Your task to perform on an android device: turn off smart reply in the gmail app Image 0: 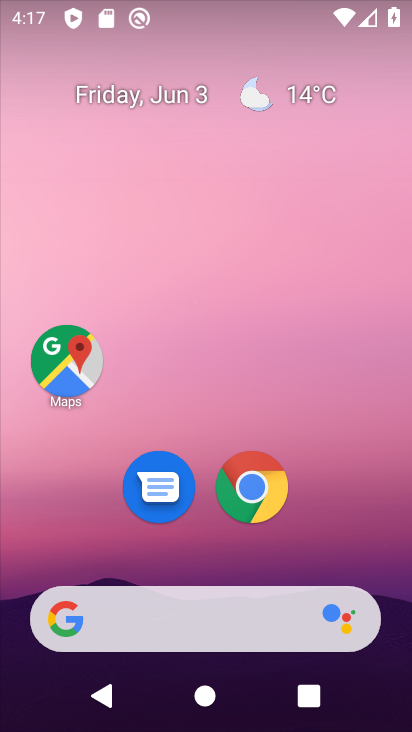
Step 0: drag from (180, 497) to (288, 128)
Your task to perform on an android device: turn off smart reply in the gmail app Image 1: 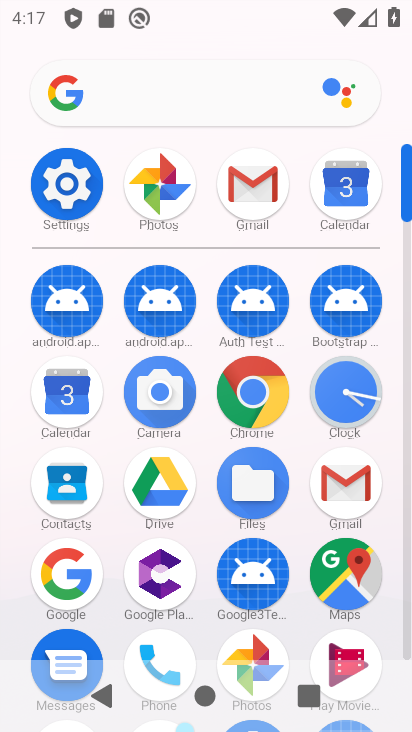
Step 1: click (229, 193)
Your task to perform on an android device: turn off smart reply in the gmail app Image 2: 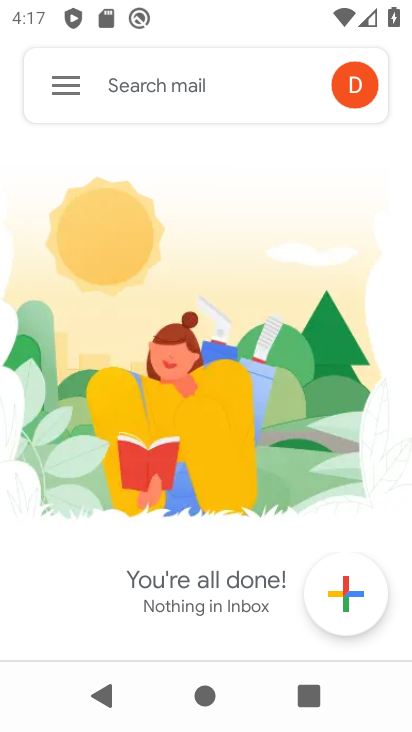
Step 2: click (71, 87)
Your task to perform on an android device: turn off smart reply in the gmail app Image 3: 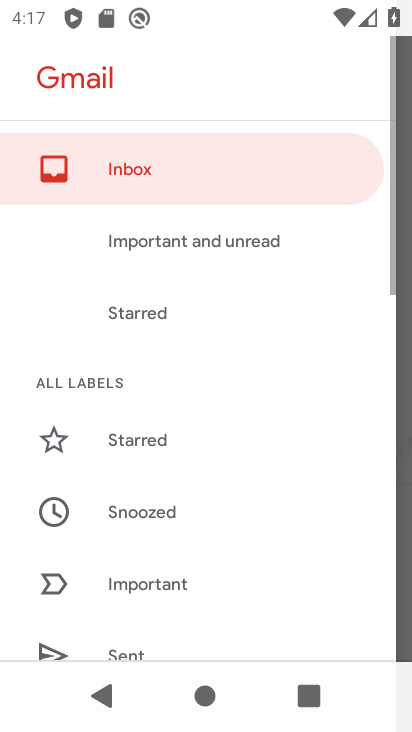
Step 3: drag from (159, 581) to (239, 59)
Your task to perform on an android device: turn off smart reply in the gmail app Image 4: 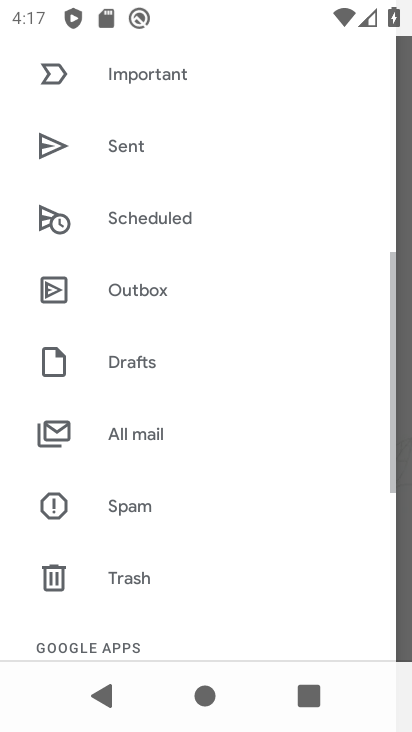
Step 4: drag from (151, 584) to (128, 535)
Your task to perform on an android device: turn off smart reply in the gmail app Image 5: 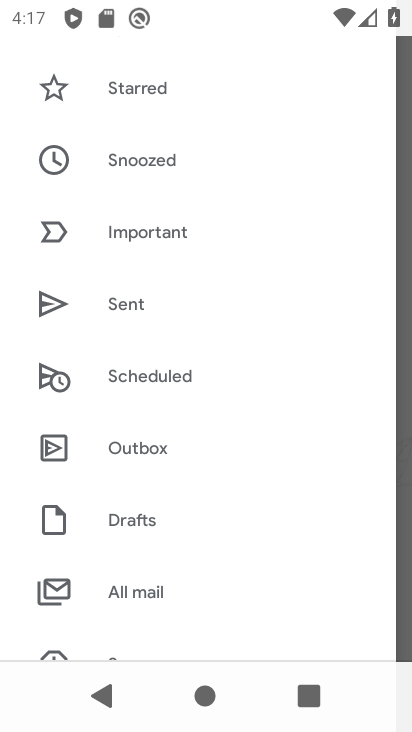
Step 5: drag from (141, 593) to (232, 13)
Your task to perform on an android device: turn off smart reply in the gmail app Image 6: 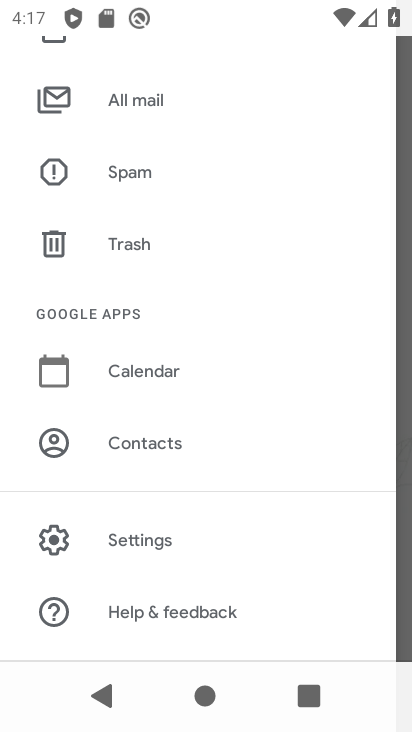
Step 6: click (137, 541)
Your task to perform on an android device: turn off smart reply in the gmail app Image 7: 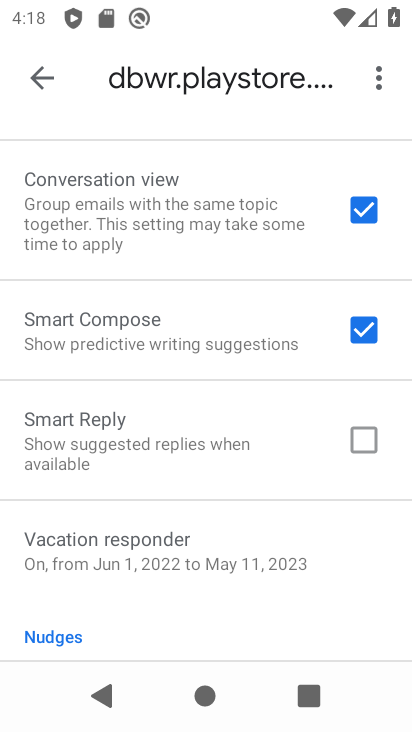
Step 7: task complete